Your task to perform on an android device: open app "Speedtest by Ookla" (install if not already installed) Image 0: 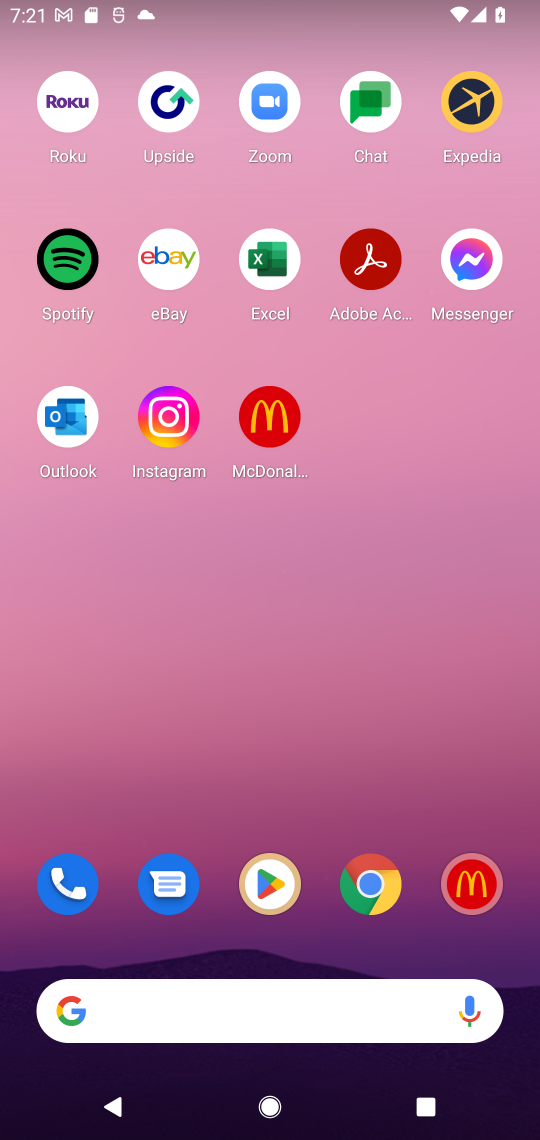
Step 0: drag from (276, 1018) to (386, 283)
Your task to perform on an android device: open app "Speedtest by Ookla" (install if not already installed) Image 1: 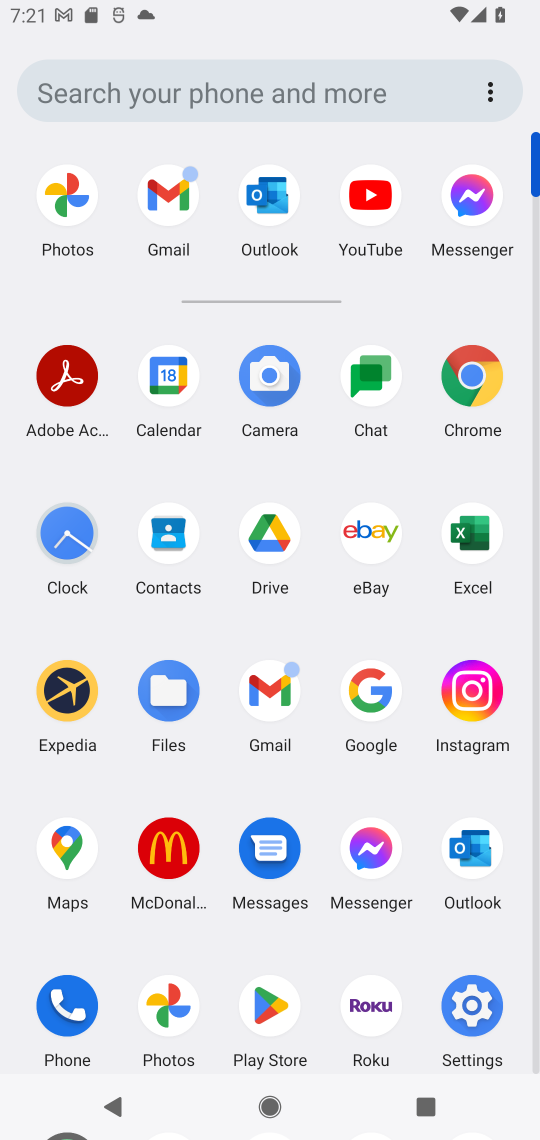
Step 1: click (272, 1002)
Your task to perform on an android device: open app "Speedtest by Ookla" (install if not already installed) Image 2: 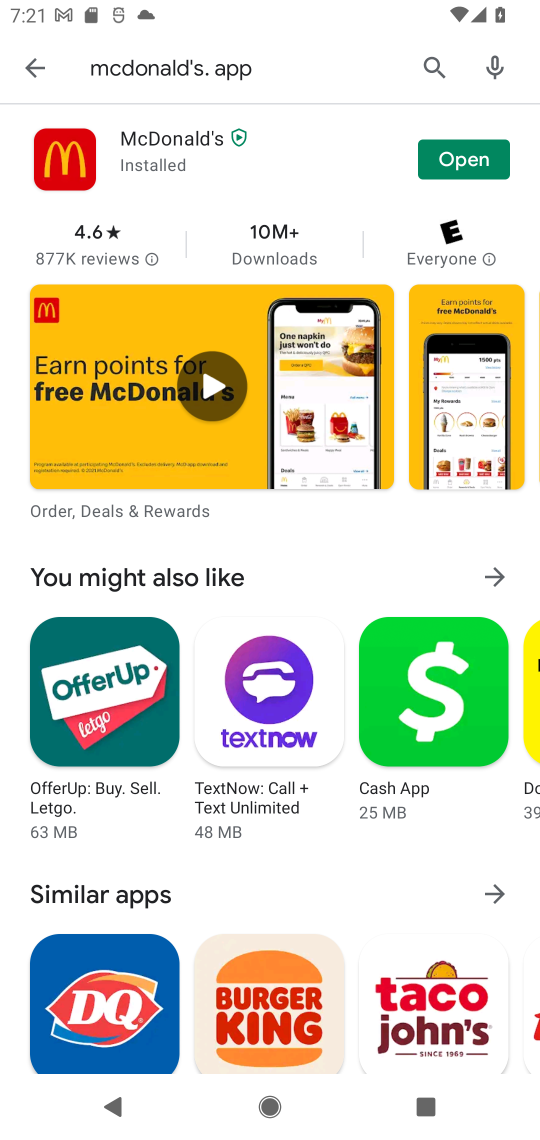
Step 2: press back button
Your task to perform on an android device: open app "Speedtest by Ookla" (install if not already installed) Image 3: 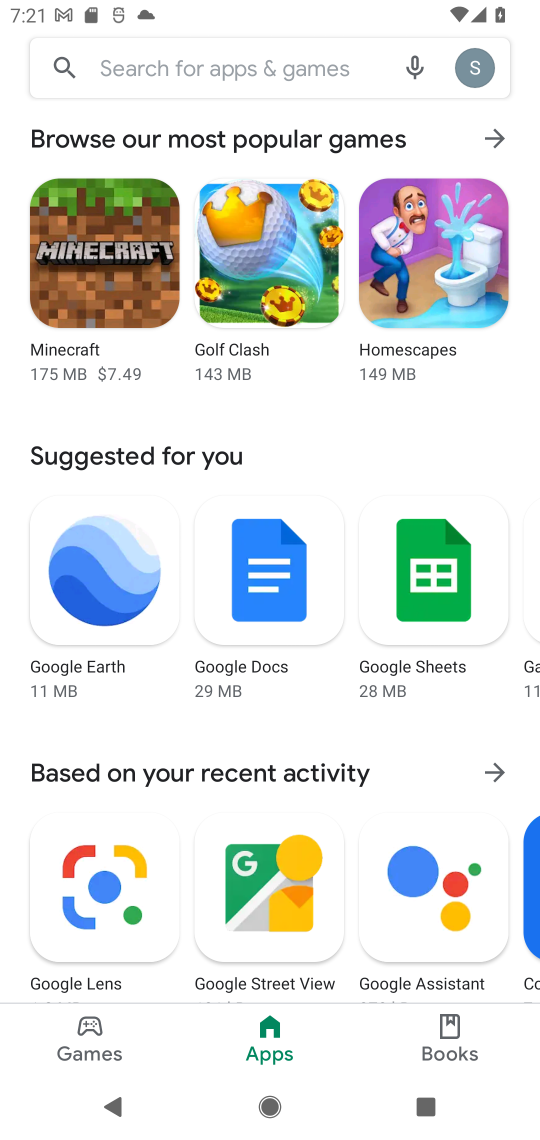
Step 3: click (311, 63)
Your task to perform on an android device: open app "Speedtest by Ookla" (install if not already installed) Image 4: 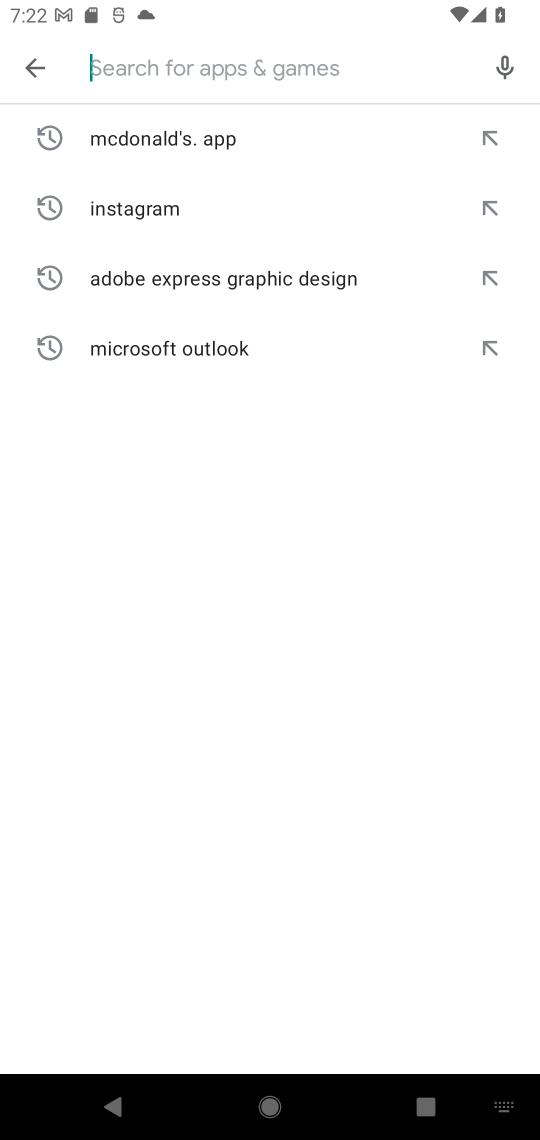
Step 4: type "Speedtest by Ookla"
Your task to perform on an android device: open app "Speedtest by Ookla" (install if not already installed) Image 5: 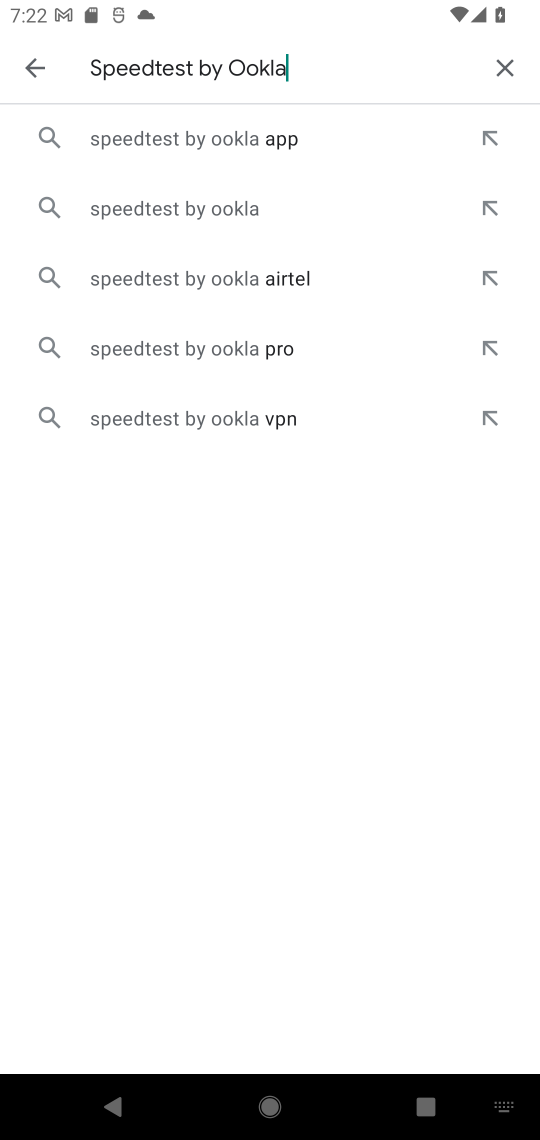
Step 5: click (227, 213)
Your task to perform on an android device: open app "Speedtest by Ookla" (install if not already installed) Image 6: 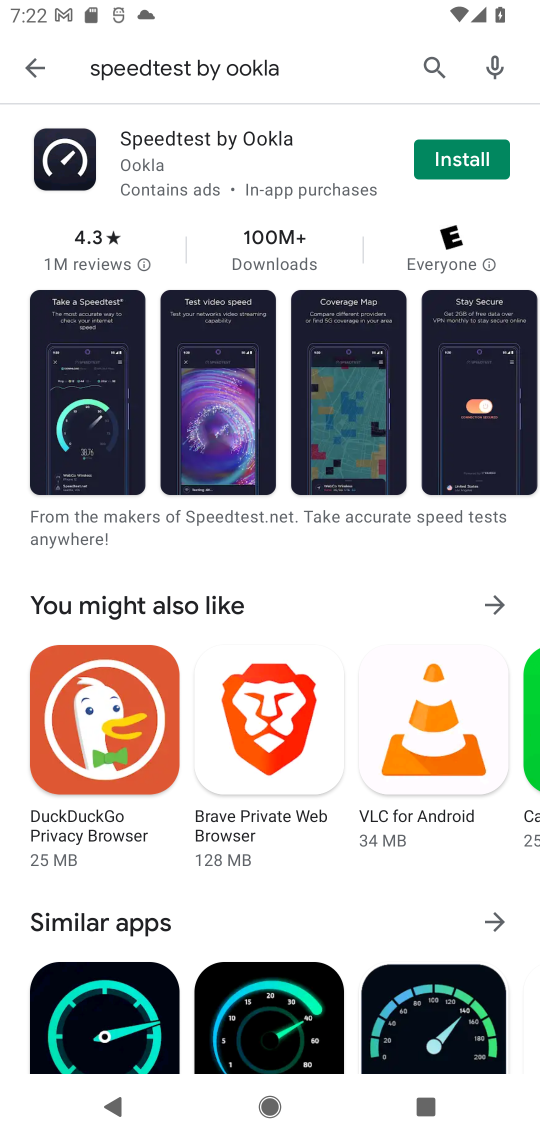
Step 6: click (455, 160)
Your task to perform on an android device: open app "Speedtest by Ookla" (install if not already installed) Image 7: 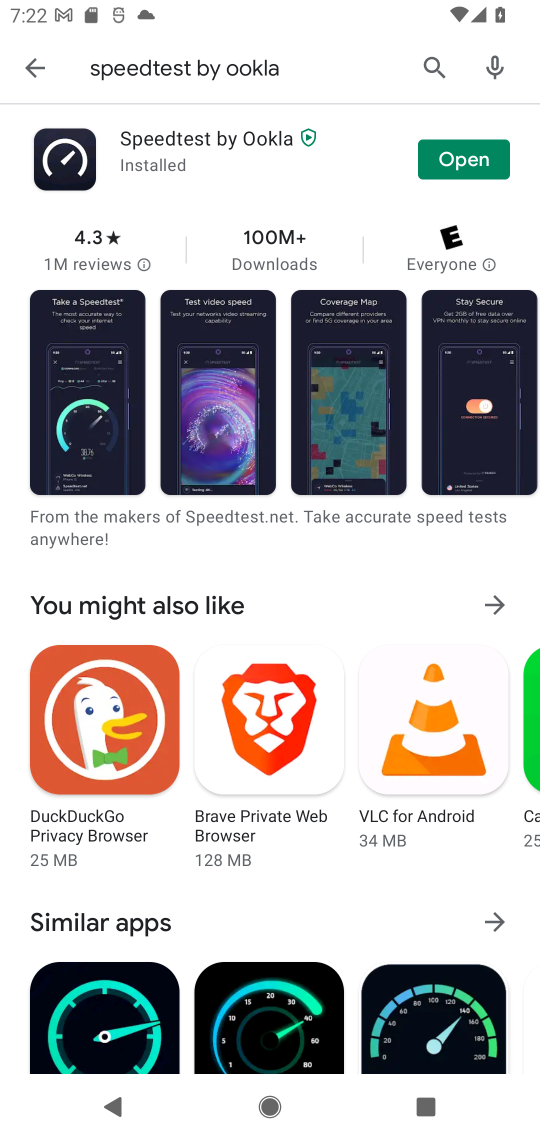
Step 7: click (455, 160)
Your task to perform on an android device: open app "Speedtest by Ookla" (install if not already installed) Image 8: 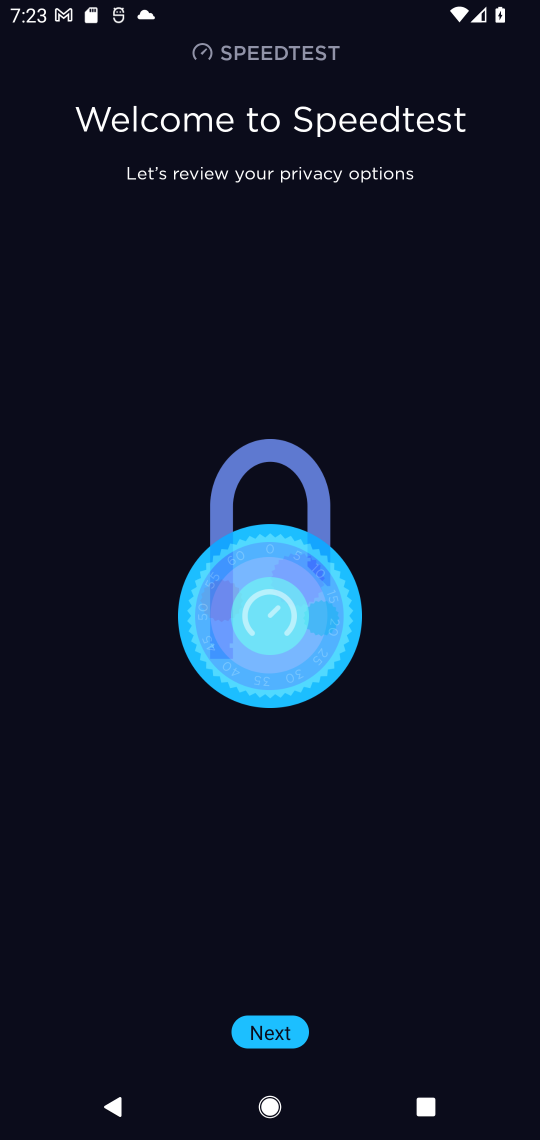
Step 8: task complete